Your task to perform on an android device: change the clock display to show seconds Image 0: 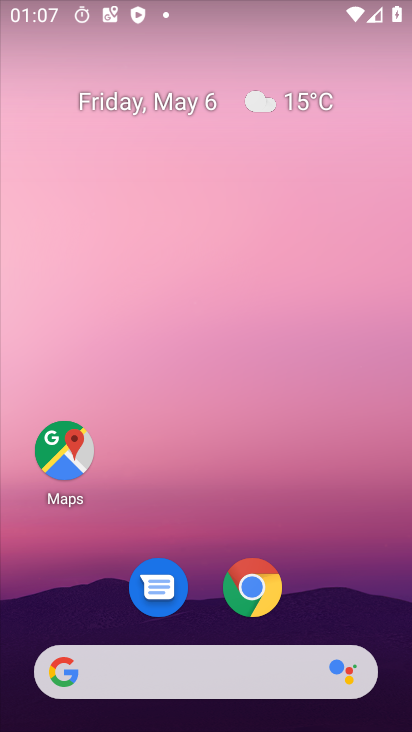
Step 0: drag from (385, 636) to (289, 226)
Your task to perform on an android device: change the clock display to show seconds Image 1: 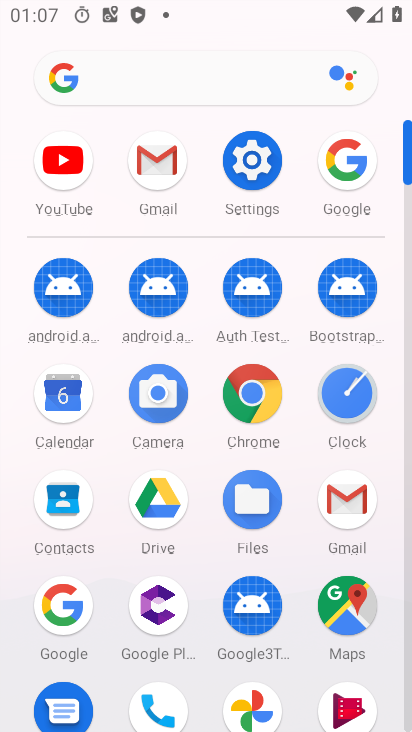
Step 1: click (331, 391)
Your task to perform on an android device: change the clock display to show seconds Image 2: 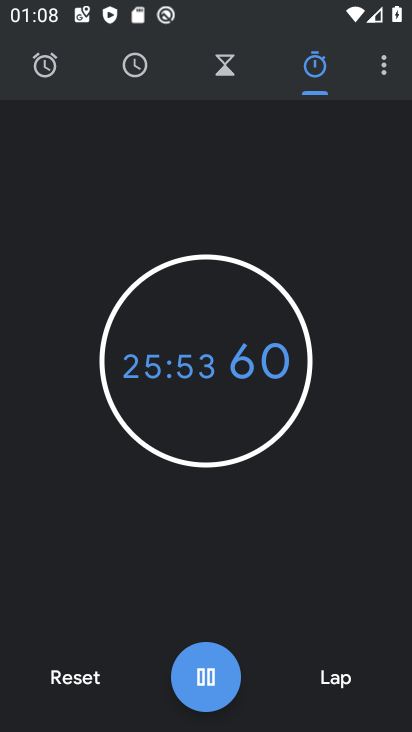
Step 2: click (384, 60)
Your task to perform on an android device: change the clock display to show seconds Image 3: 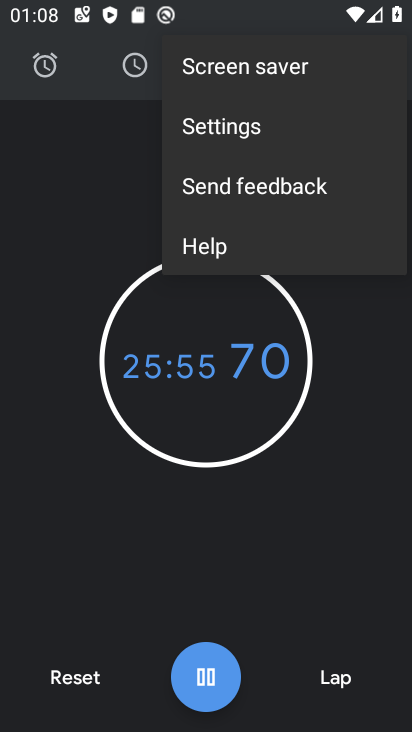
Step 3: click (255, 128)
Your task to perform on an android device: change the clock display to show seconds Image 4: 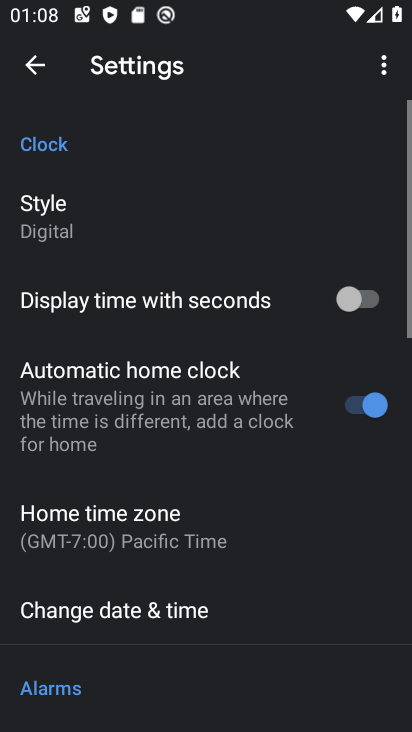
Step 4: click (41, 199)
Your task to perform on an android device: change the clock display to show seconds Image 5: 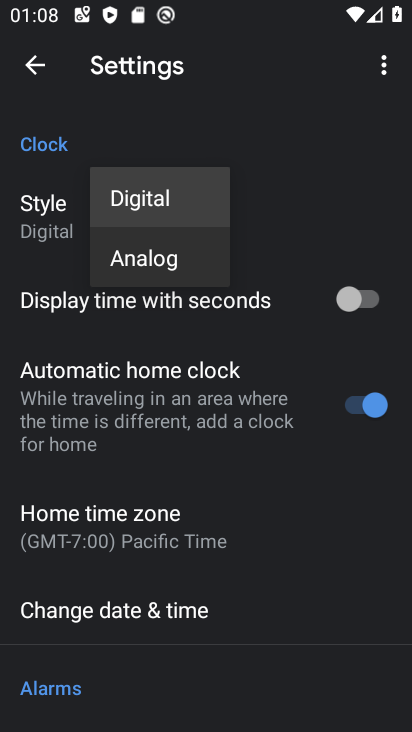
Step 5: click (138, 197)
Your task to perform on an android device: change the clock display to show seconds Image 6: 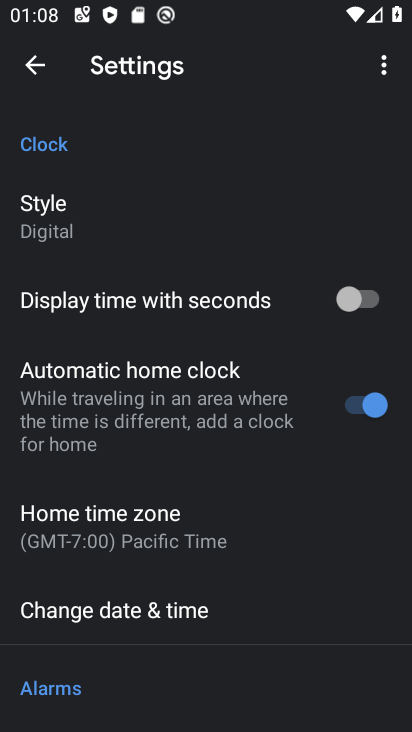
Step 6: task complete